Your task to perform on an android device: clear all cookies in the chrome app Image 0: 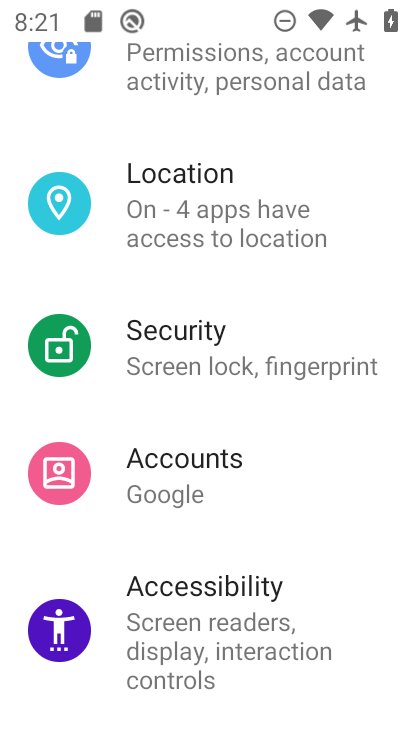
Step 0: press home button
Your task to perform on an android device: clear all cookies in the chrome app Image 1: 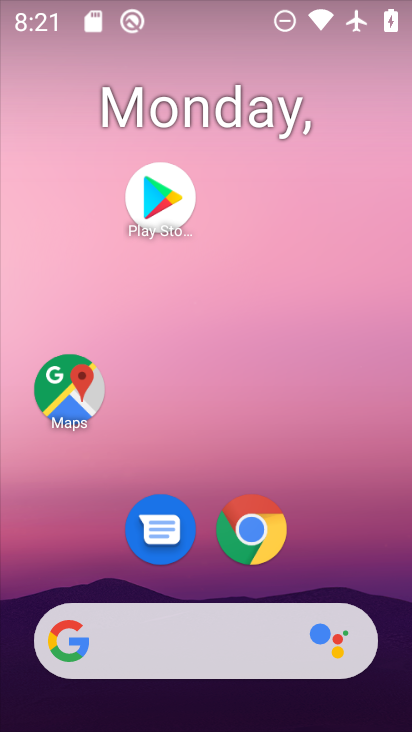
Step 1: click (241, 535)
Your task to perform on an android device: clear all cookies in the chrome app Image 2: 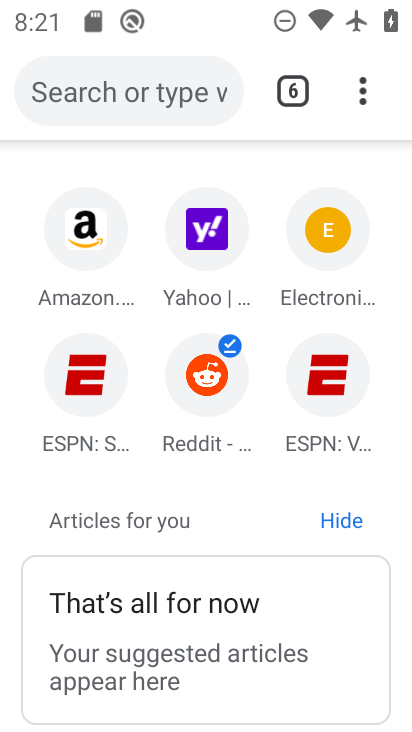
Step 2: click (366, 92)
Your task to perform on an android device: clear all cookies in the chrome app Image 3: 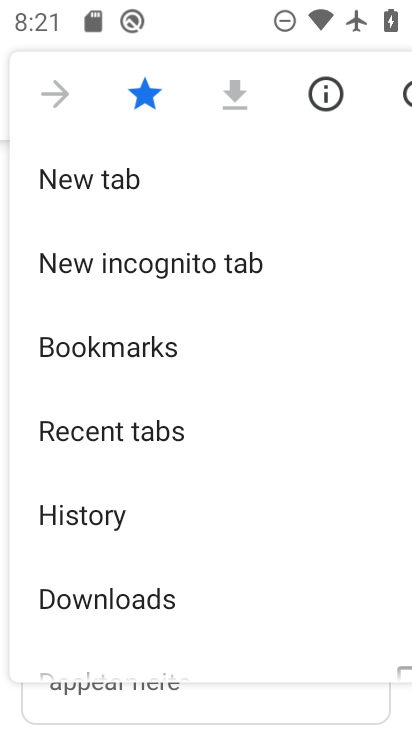
Step 3: drag from (257, 547) to (228, 175)
Your task to perform on an android device: clear all cookies in the chrome app Image 4: 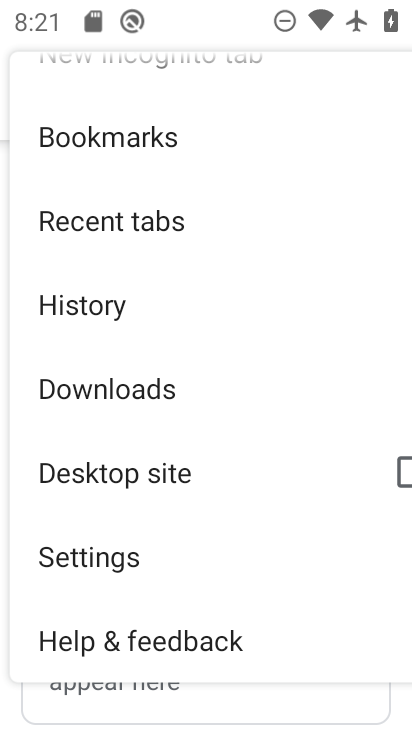
Step 4: click (97, 552)
Your task to perform on an android device: clear all cookies in the chrome app Image 5: 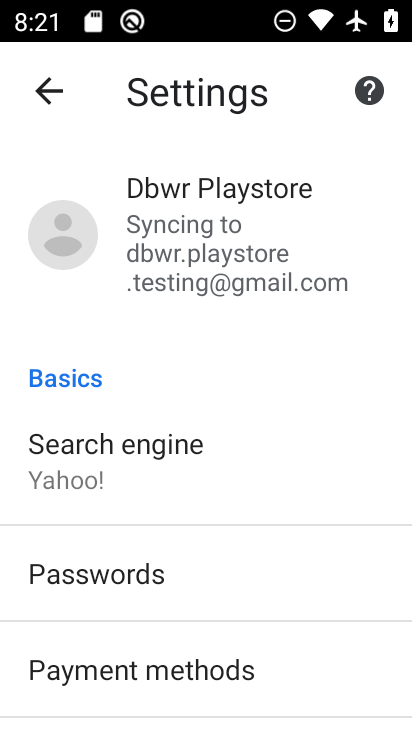
Step 5: drag from (240, 611) to (237, 294)
Your task to perform on an android device: clear all cookies in the chrome app Image 6: 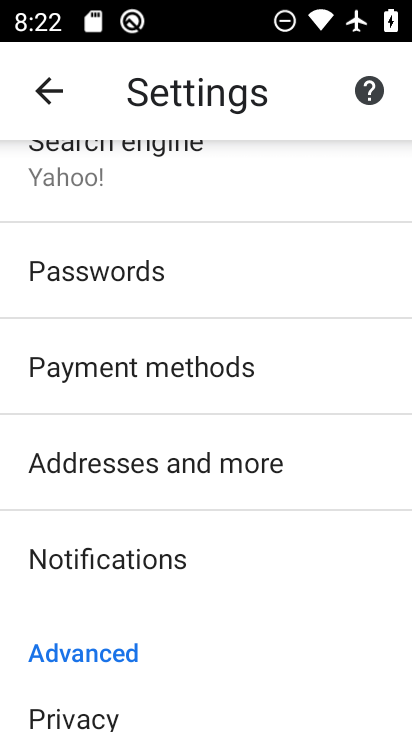
Step 6: drag from (234, 595) to (221, 195)
Your task to perform on an android device: clear all cookies in the chrome app Image 7: 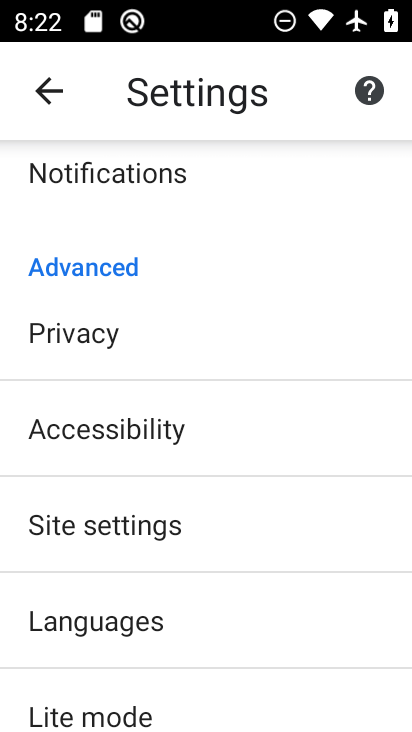
Step 7: drag from (232, 514) to (230, 225)
Your task to perform on an android device: clear all cookies in the chrome app Image 8: 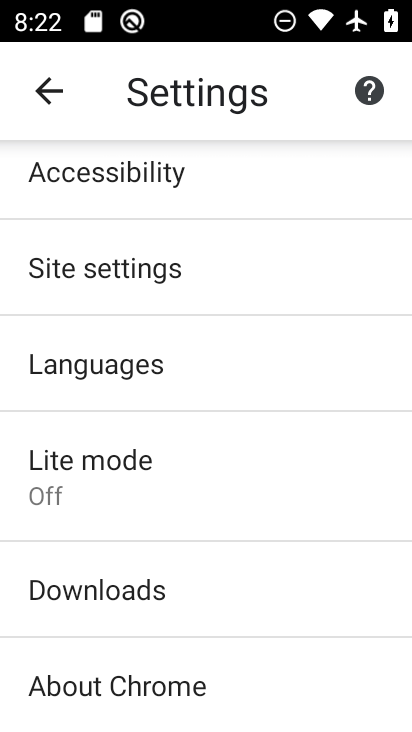
Step 8: click (127, 264)
Your task to perform on an android device: clear all cookies in the chrome app Image 9: 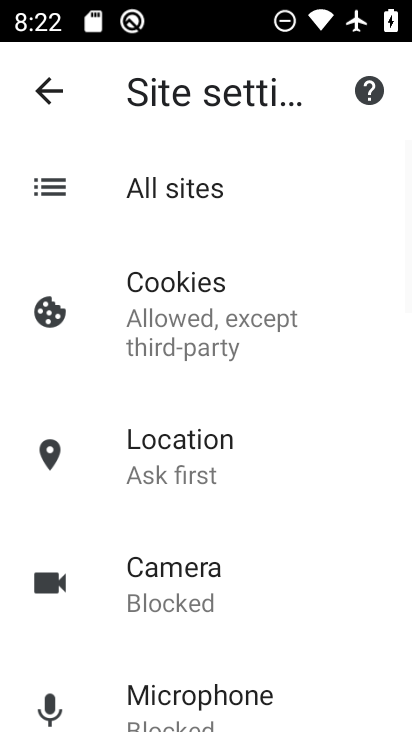
Step 9: click (166, 317)
Your task to perform on an android device: clear all cookies in the chrome app Image 10: 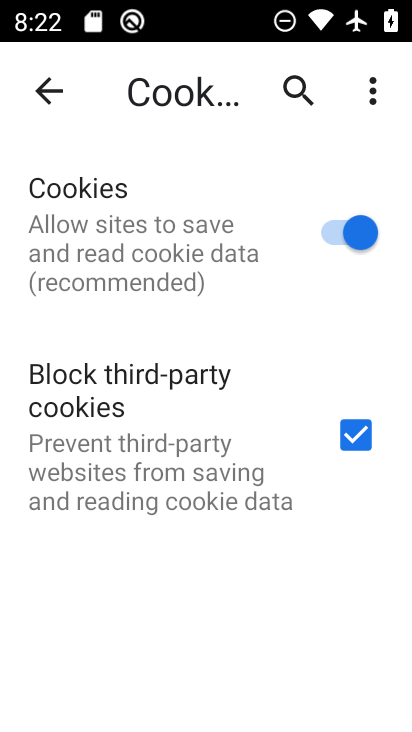
Step 10: task complete